Your task to perform on an android device: set the timer Image 0: 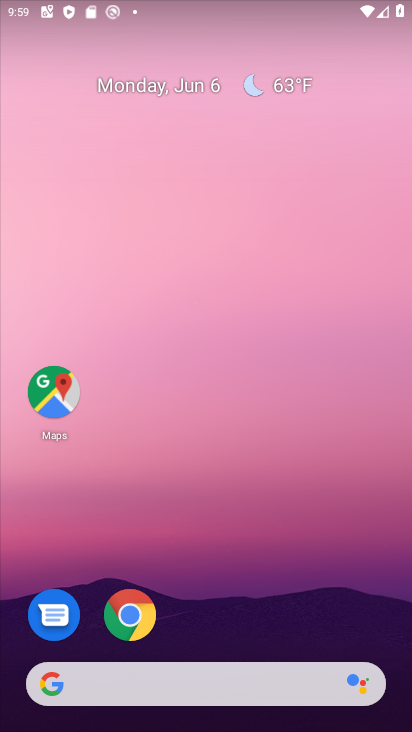
Step 0: press home button
Your task to perform on an android device: set the timer Image 1: 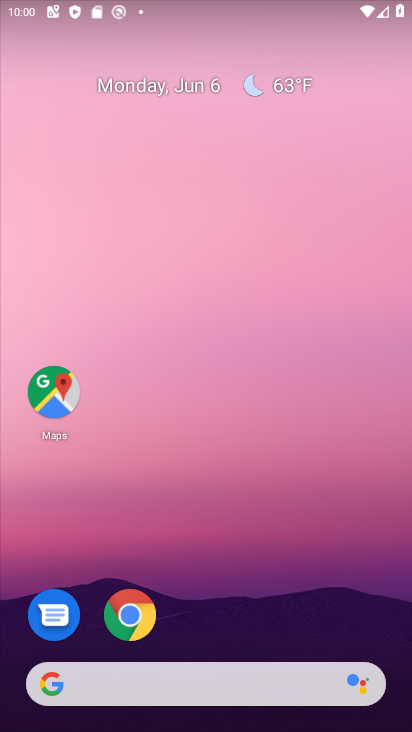
Step 1: drag from (223, 638) to (264, 144)
Your task to perform on an android device: set the timer Image 2: 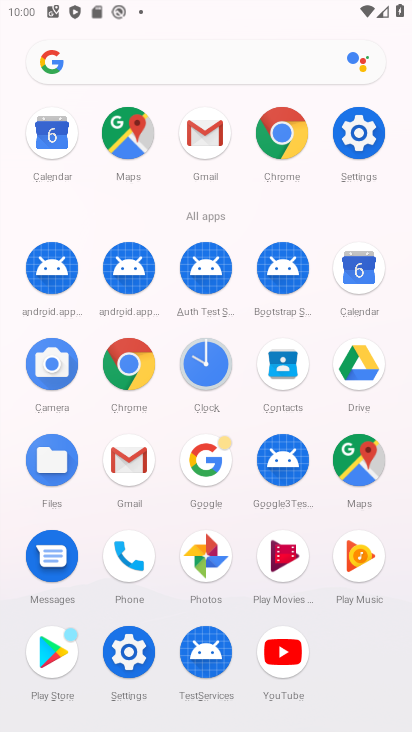
Step 2: click (205, 353)
Your task to perform on an android device: set the timer Image 3: 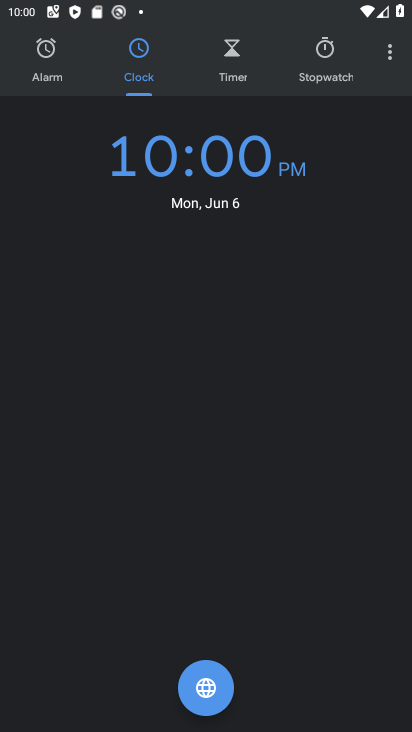
Step 3: click (234, 58)
Your task to perform on an android device: set the timer Image 4: 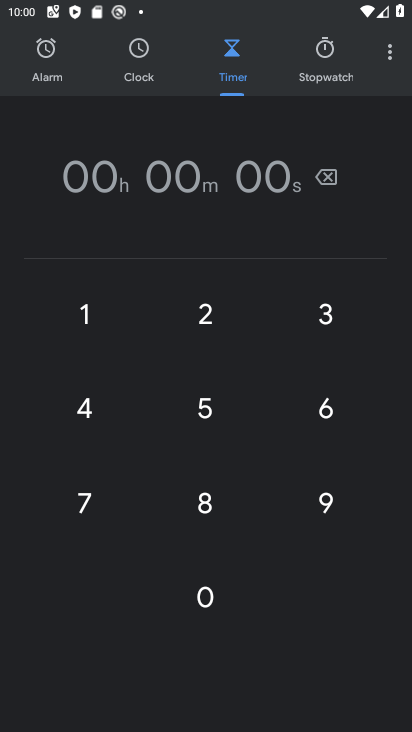
Step 4: click (205, 317)
Your task to perform on an android device: set the timer Image 5: 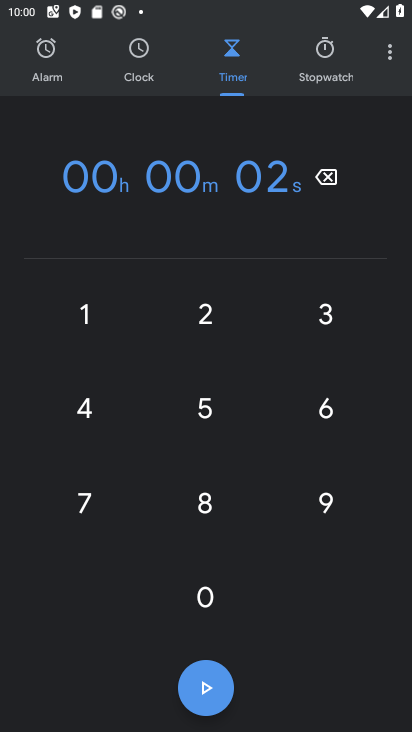
Step 5: click (210, 596)
Your task to perform on an android device: set the timer Image 6: 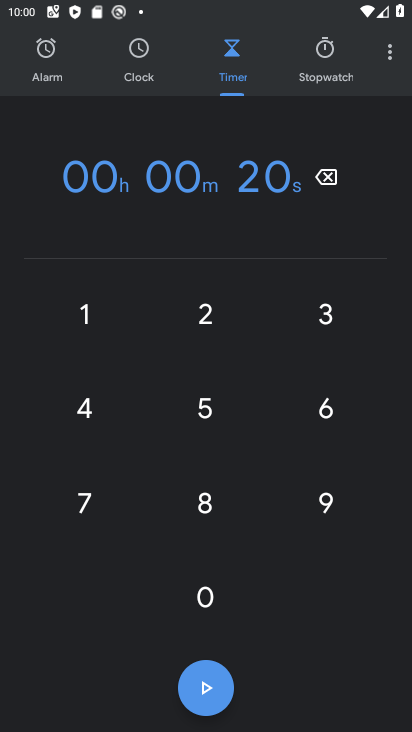
Step 6: click (210, 596)
Your task to perform on an android device: set the timer Image 7: 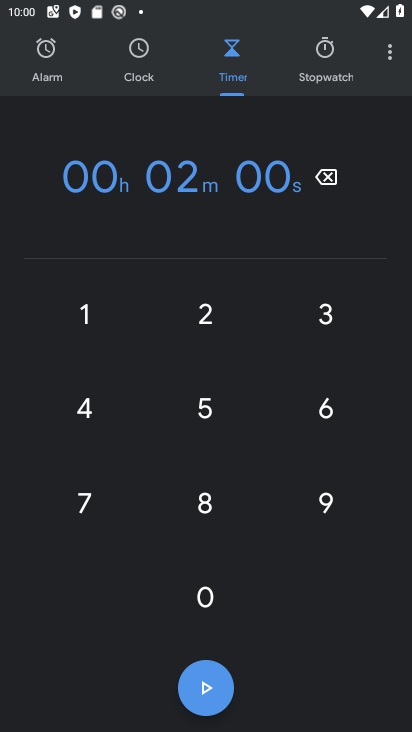
Step 7: click (209, 592)
Your task to perform on an android device: set the timer Image 8: 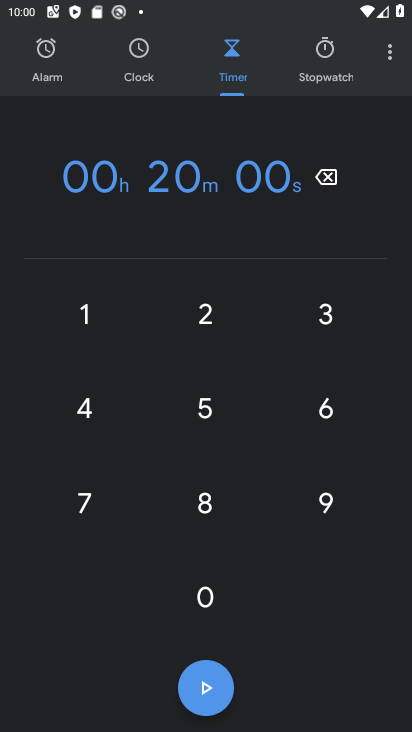
Step 8: click (203, 682)
Your task to perform on an android device: set the timer Image 9: 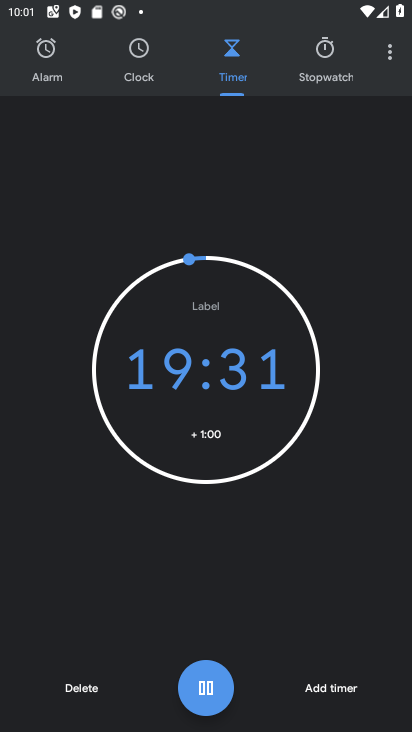
Step 9: task complete